Your task to perform on an android device: Add bose soundsport free to the cart on target, then select checkout. Image 0: 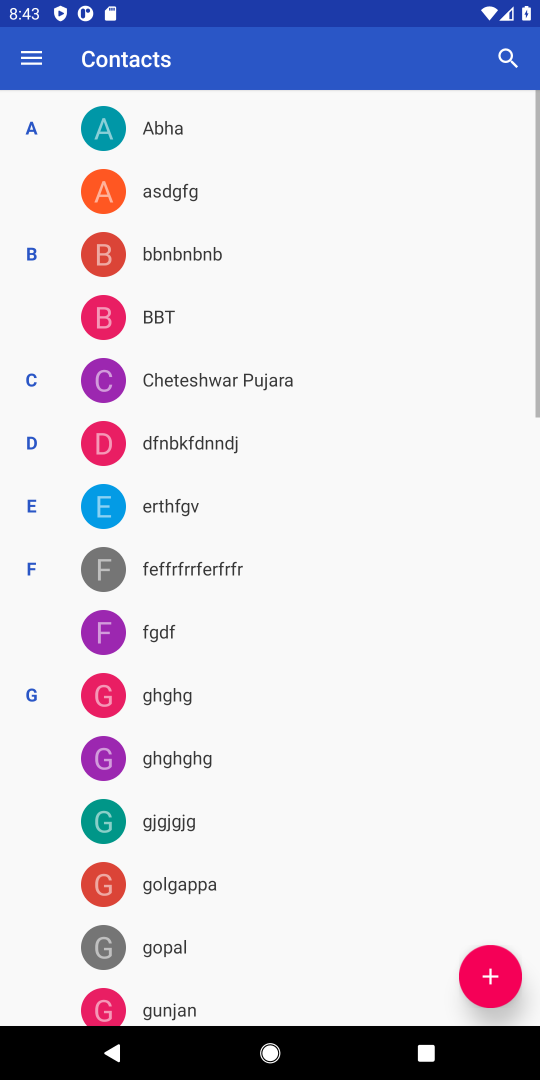
Step 0: press home button
Your task to perform on an android device: Add bose soundsport free to the cart on target, then select checkout. Image 1: 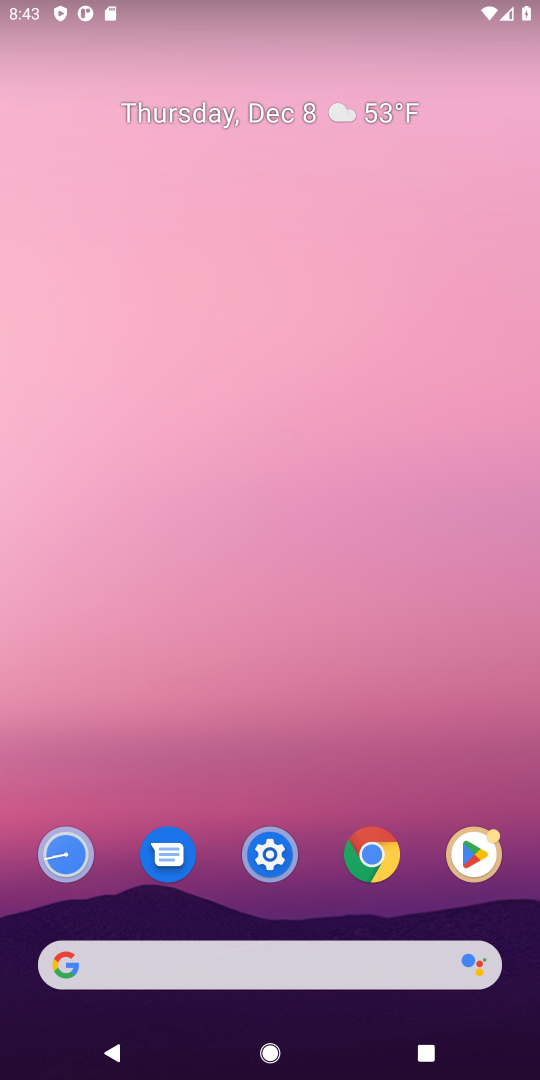
Step 1: click (92, 966)
Your task to perform on an android device: Add bose soundsport free to the cart on target, then select checkout. Image 2: 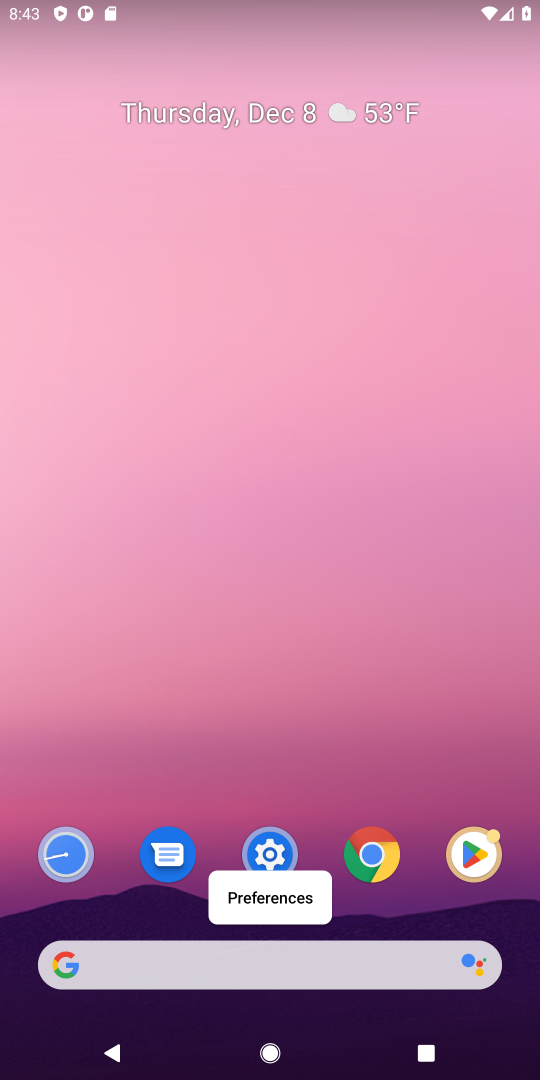
Step 2: click (91, 968)
Your task to perform on an android device: Add bose soundsport free to the cart on target, then select checkout. Image 3: 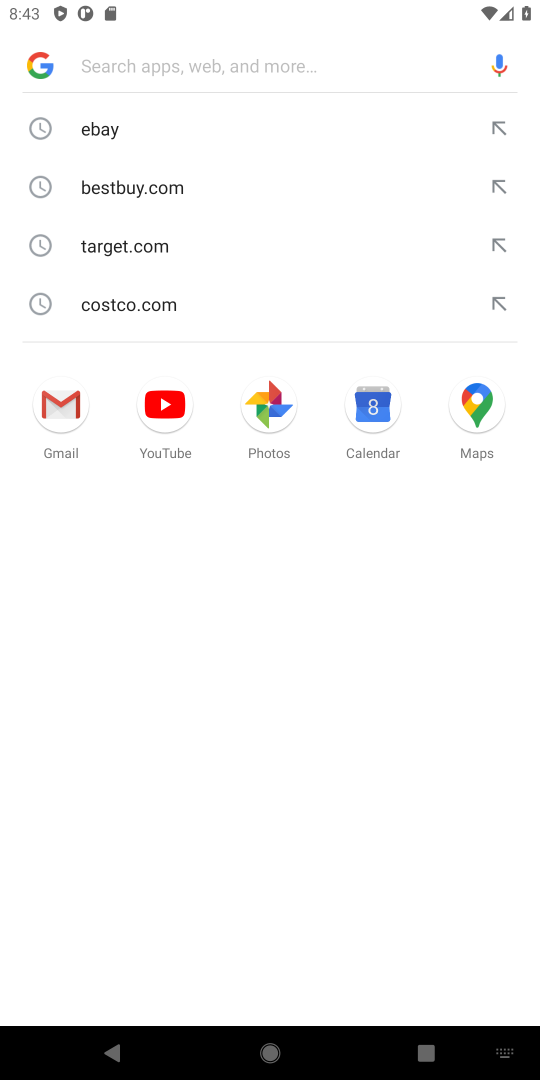
Step 3: type " target"
Your task to perform on an android device: Add bose soundsport free to the cart on target, then select checkout. Image 4: 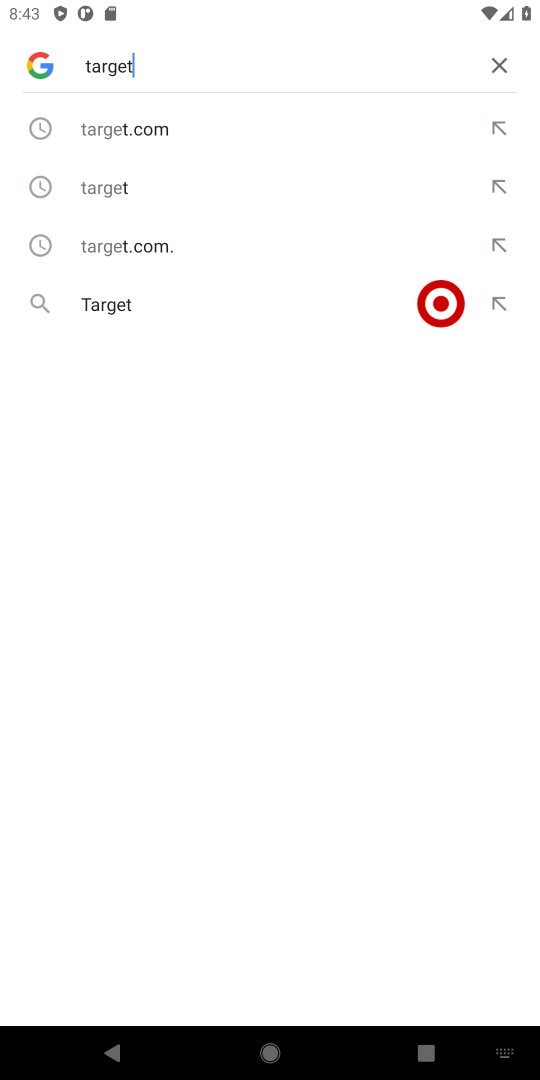
Step 4: press enter
Your task to perform on an android device: Add bose soundsport free to the cart on target, then select checkout. Image 5: 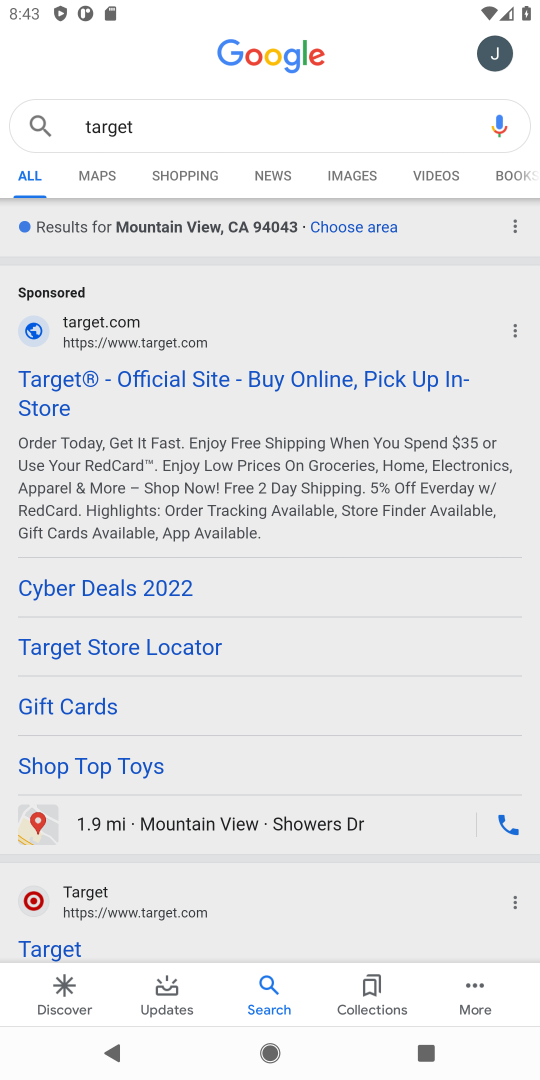
Step 5: click (175, 379)
Your task to perform on an android device: Add bose soundsport free to the cart on target, then select checkout. Image 6: 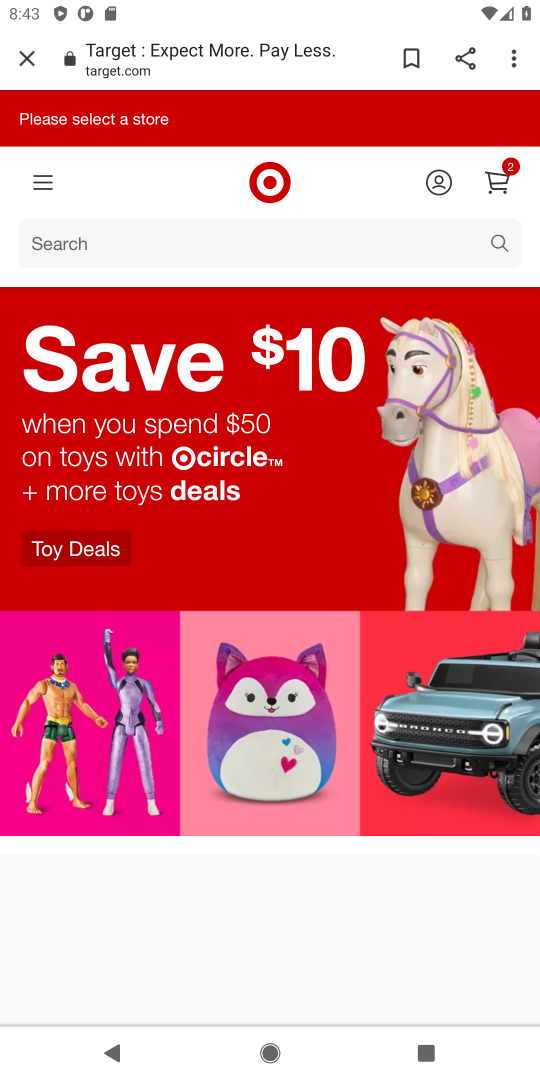
Step 6: click (75, 243)
Your task to perform on an android device: Add bose soundsport free to the cart on target, then select checkout. Image 7: 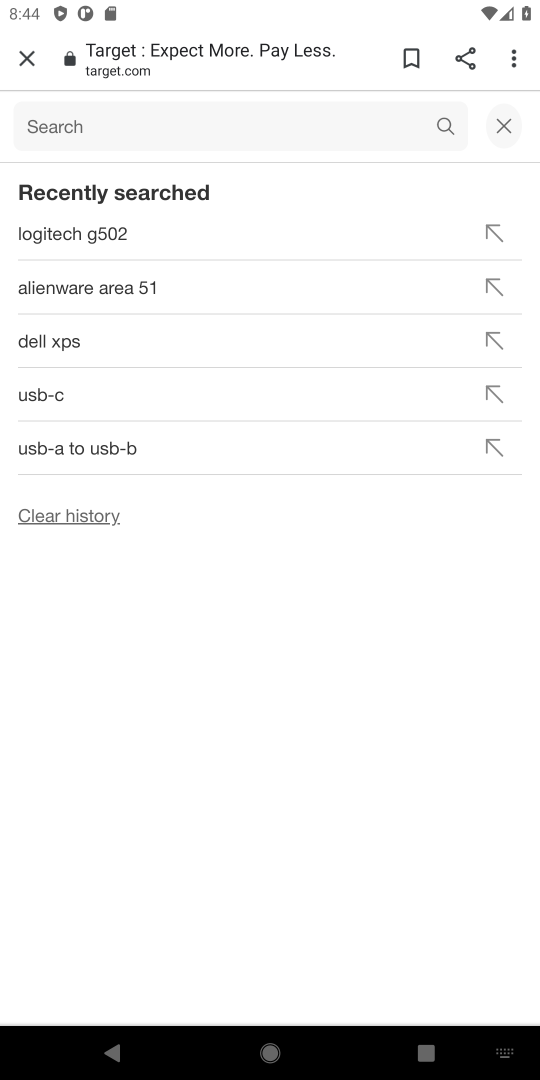
Step 7: type " bose soundsport free"
Your task to perform on an android device: Add bose soundsport free to the cart on target, then select checkout. Image 8: 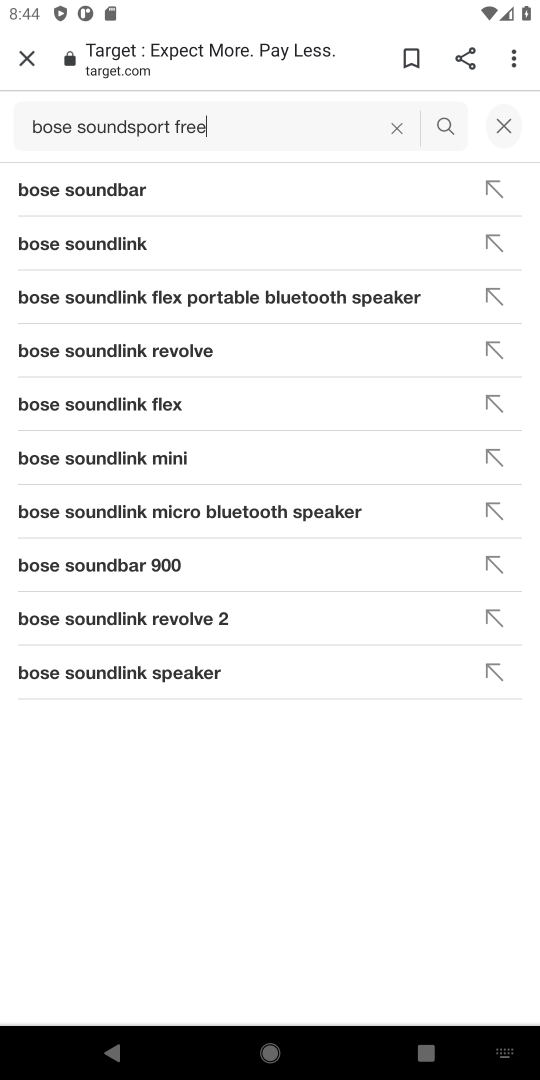
Step 8: press enter
Your task to perform on an android device: Add bose soundsport free to the cart on target, then select checkout. Image 9: 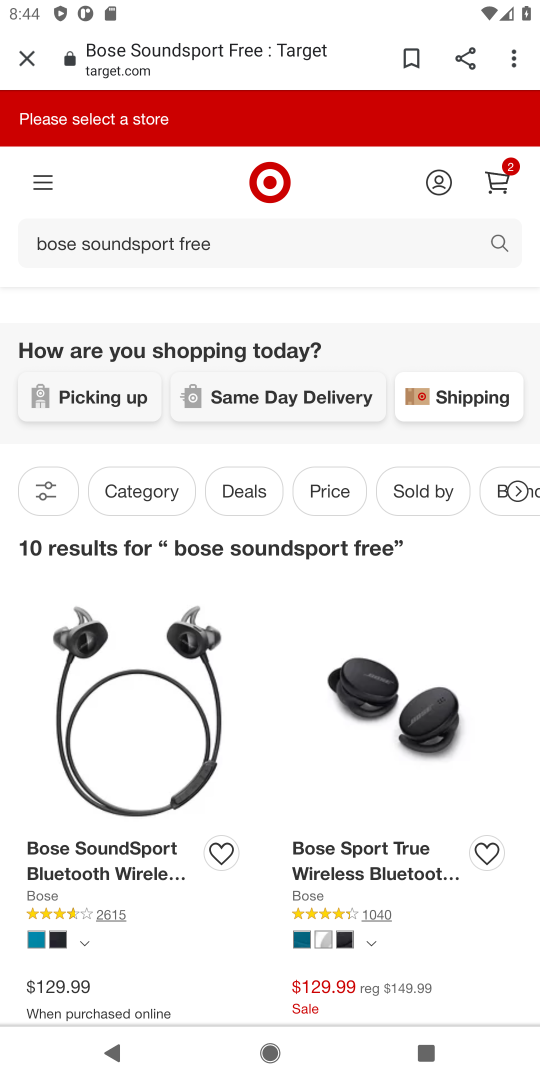
Step 9: task complete